Your task to perform on an android device: snooze an email in the gmail app Image 0: 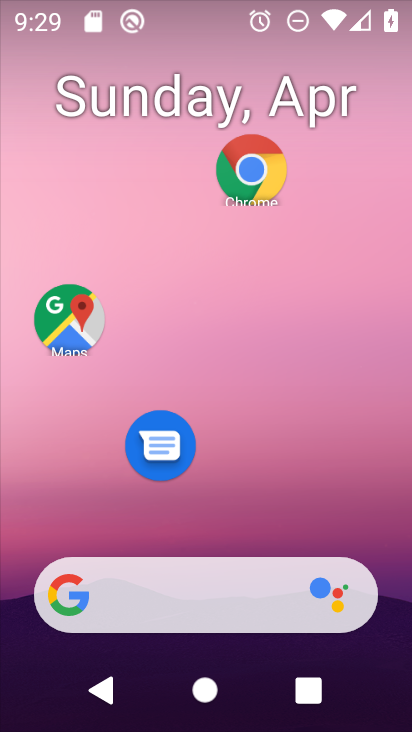
Step 0: drag from (259, 449) to (349, 11)
Your task to perform on an android device: snooze an email in the gmail app Image 1: 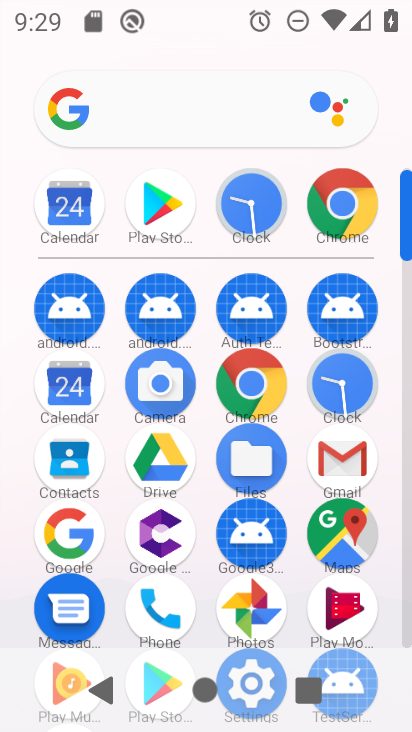
Step 1: click (336, 451)
Your task to perform on an android device: snooze an email in the gmail app Image 2: 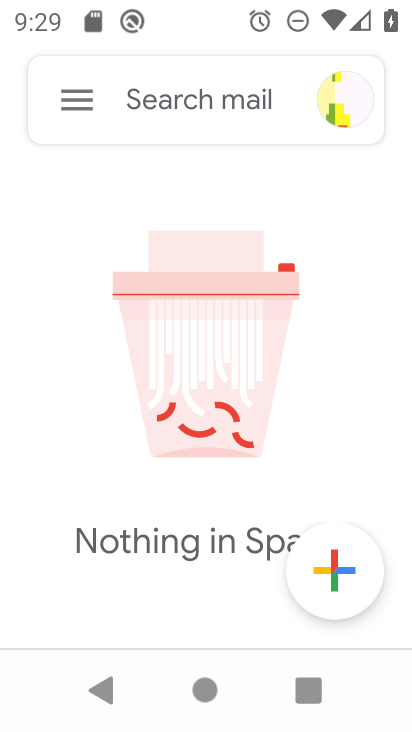
Step 2: click (67, 100)
Your task to perform on an android device: snooze an email in the gmail app Image 3: 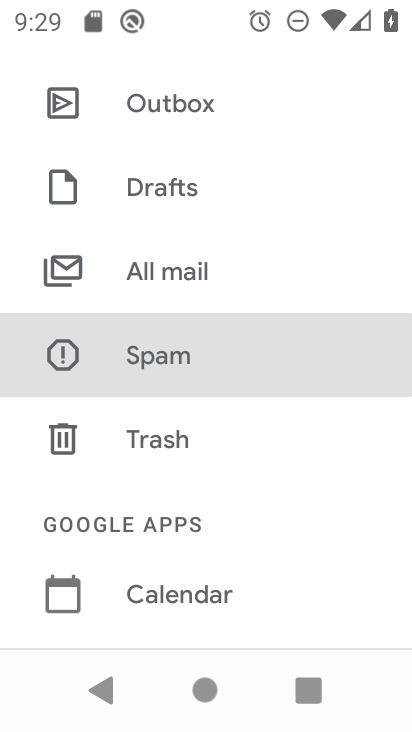
Step 3: click (182, 278)
Your task to perform on an android device: snooze an email in the gmail app Image 4: 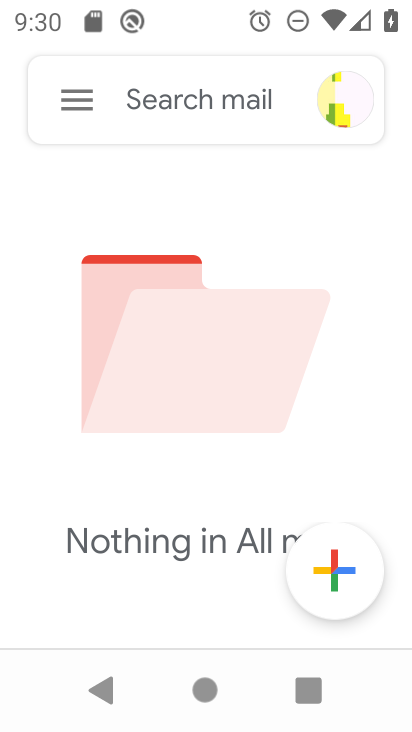
Step 4: task complete